Your task to perform on an android device: Show me the best rated vacuum on Walmart. Image 0: 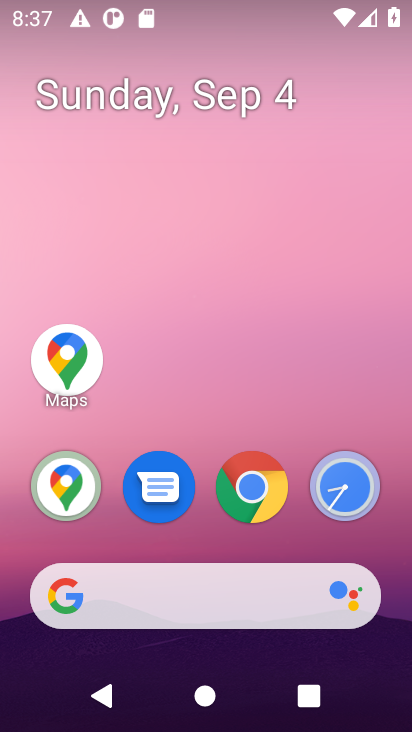
Step 0: click (264, 494)
Your task to perform on an android device: Show me the best rated vacuum on Walmart. Image 1: 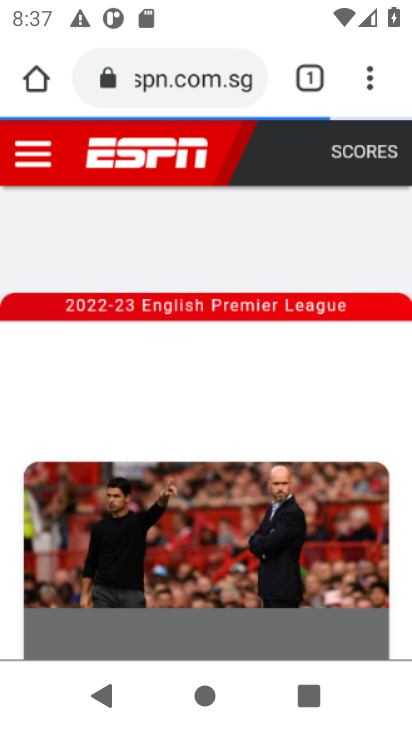
Step 1: task complete